Your task to perform on an android device: set an alarm Image 0: 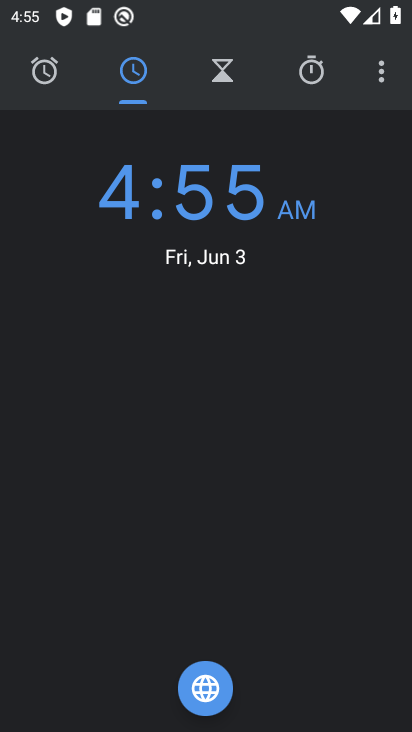
Step 0: click (44, 72)
Your task to perform on an android device: set an alarm Image 1: 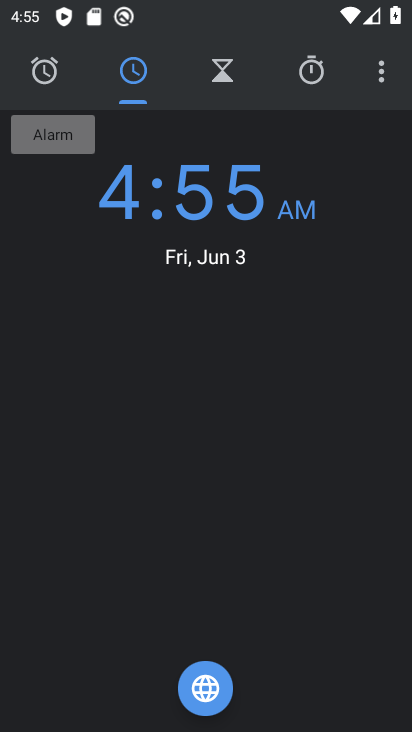
Step 1: click (202, 691)
Your task to perform on an android device: set an alarm Image 2: 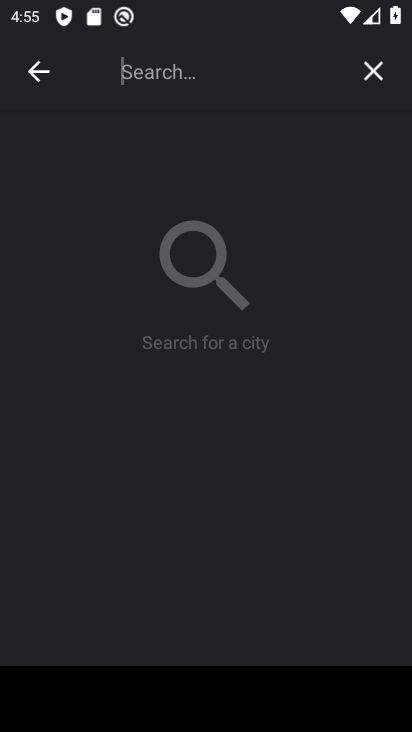
Step 2: click (42, 69)
Your task to perform on an android device: set an alarm Image 3: 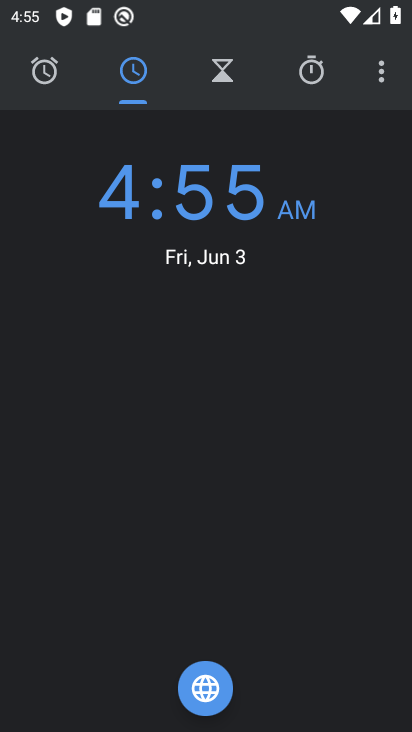
Step 3: click (42, 69)
Your task to perform on an android device: set an alarm Image 4: 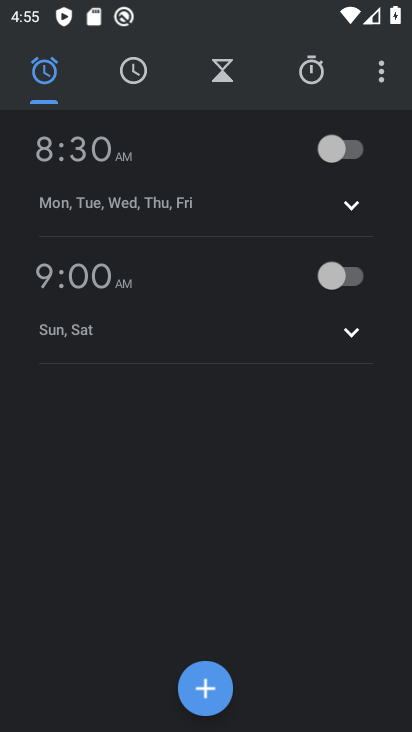
Step 4: click (205, 693)
Your task to perform on an android device: set an alarm Image 5: 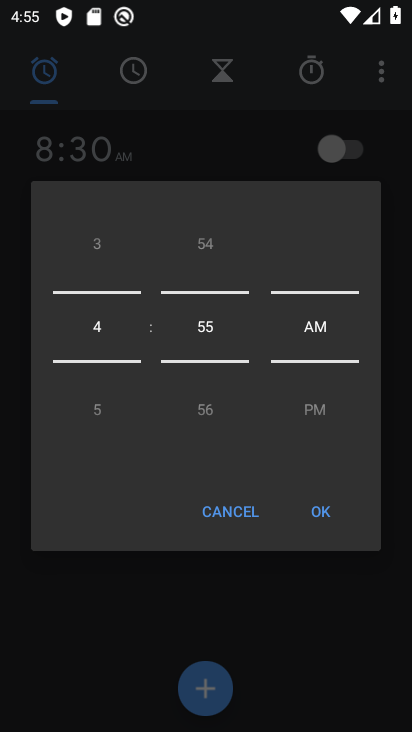
Step 5: click (318, 514)
Your task to perform on an android device: set an alarm Image 6: 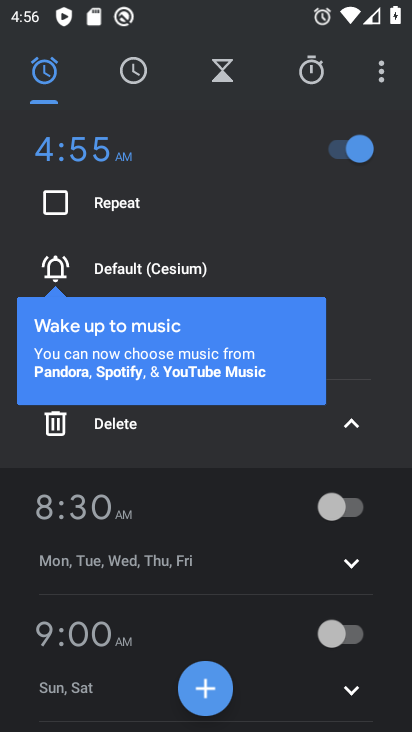
Step 6: task complete